Your task to perform on an android device: turn on javascript in the chrome app Image 0: 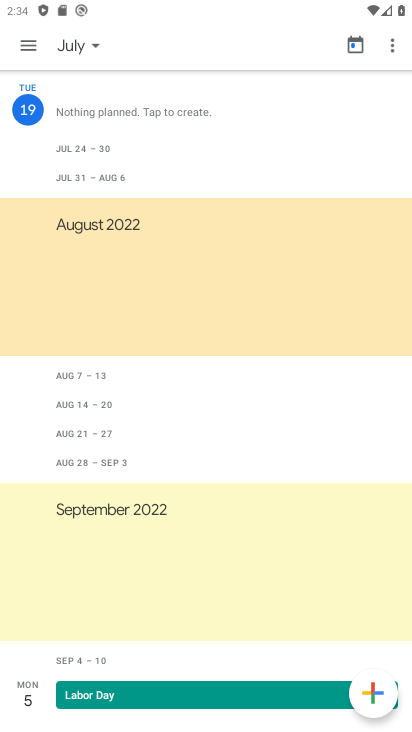
Step 0: press home button
Your task to perform on an android device: turn on javascript in the chrome app Image 1: 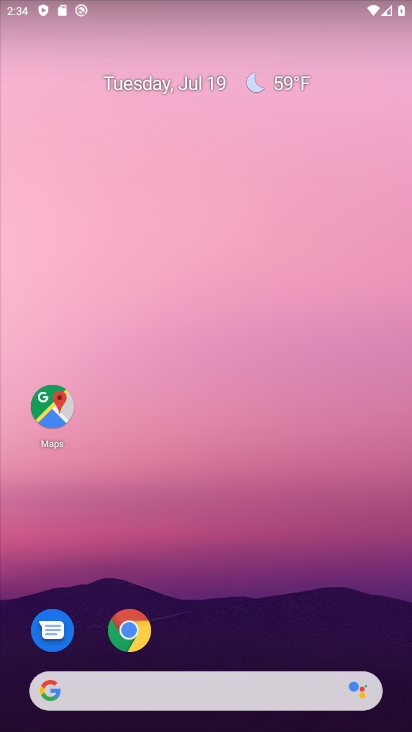
Step 1: click (128, 638)
Your task to perform on an android device: turn on javascript in the chrome app Image 2: 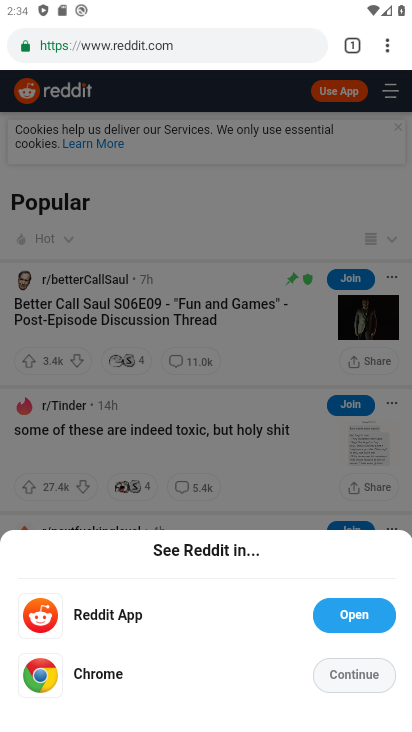
Step 2: click (396, 54)
Your task to perform on an android device: turn on javascript in the chrome app Image 3: 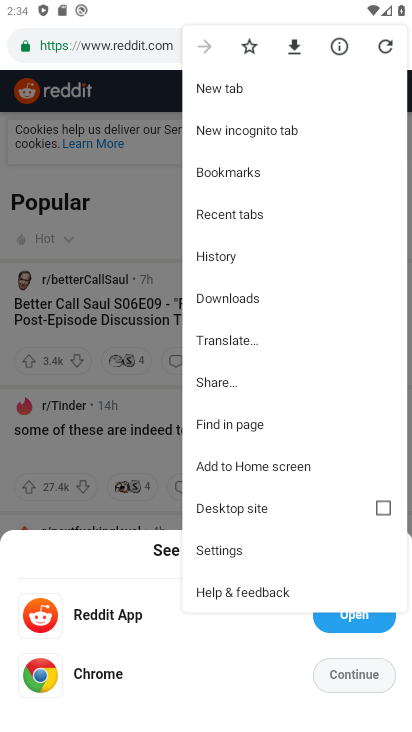
Step 3: click (210, 537)
Your task to perform on an android device: turn on javascript in the chrome app Image 4: 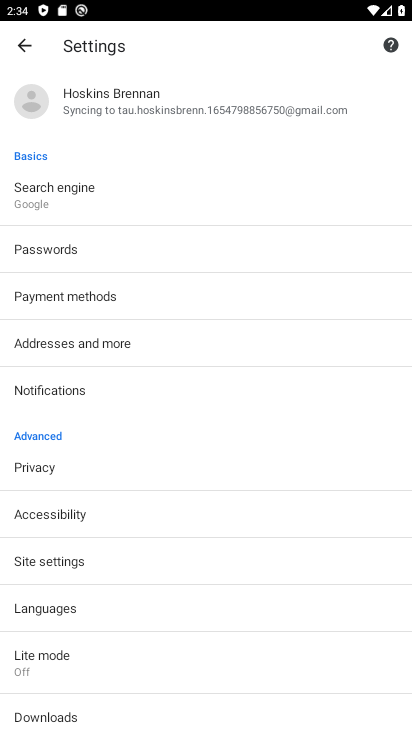
Step 4: click (111, 570)
Your task to perform on an android device: turn on javascript in the chrome app Image 5: 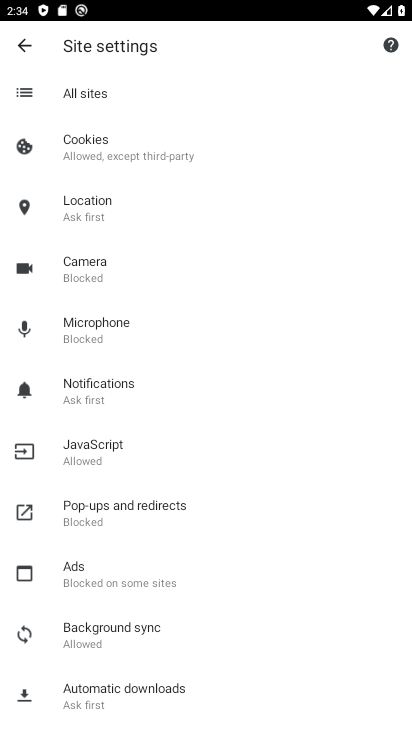
Step 5: click (81, 449)
Your task to perform on an android device: turn on javascript in the chrome app Image 6: 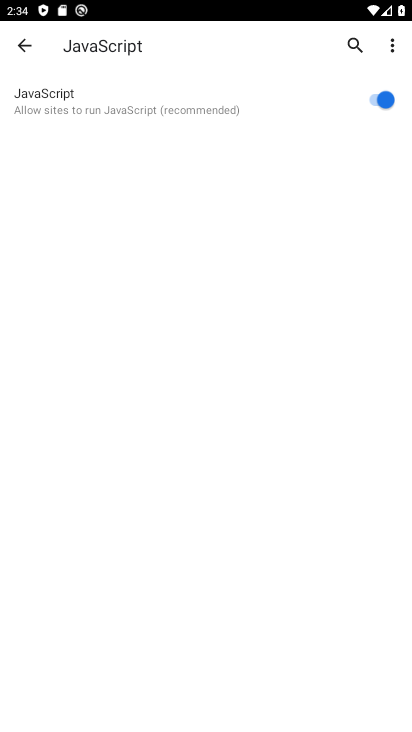
Step 6: task complete